Your task to perform on an android device: change alarm snooze length Image 0: 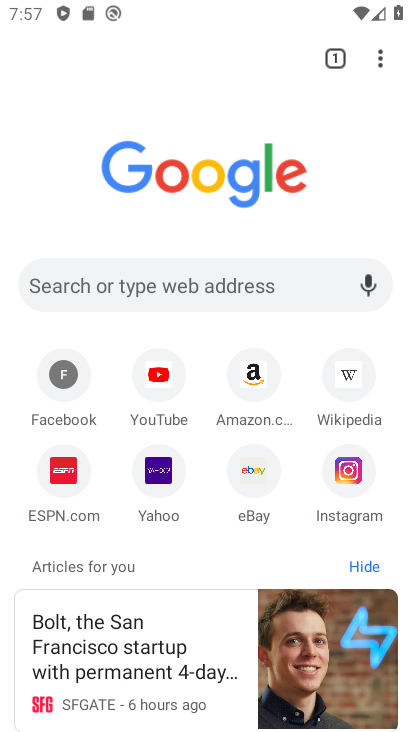
Step 0: press home button
Your task to perform on an android device: change alarm snooze length Image 1: 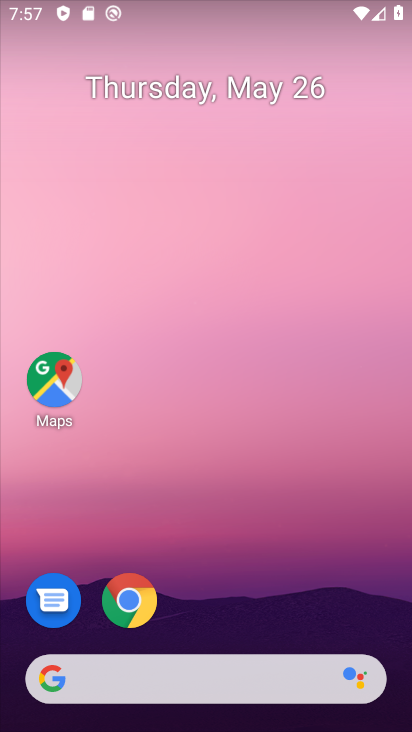
Step 1: drag from (199, 623) to (233, 7)
Your task to perform on an android device: change alarm snooze length Image 2: 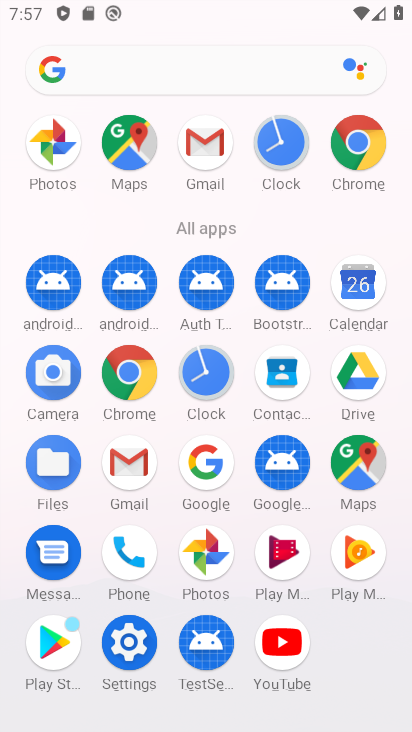
Step 2: click (298, 144)
Your task to perform on an android device: change alarm snooze length Image 3: 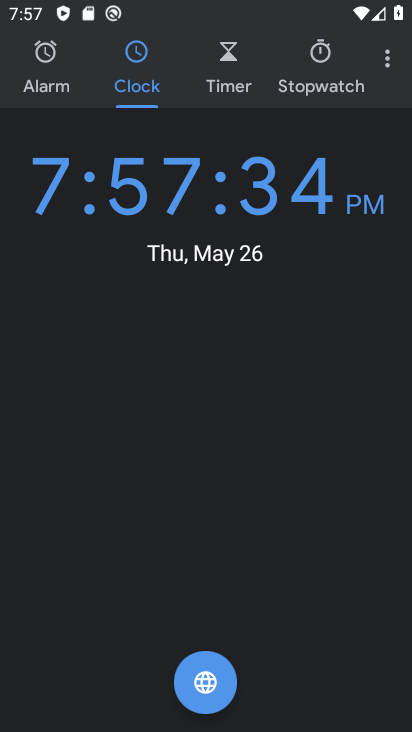
Step 3: click (397, 61)
Your task to perform on an android device: change alarm snooze length Image 4: 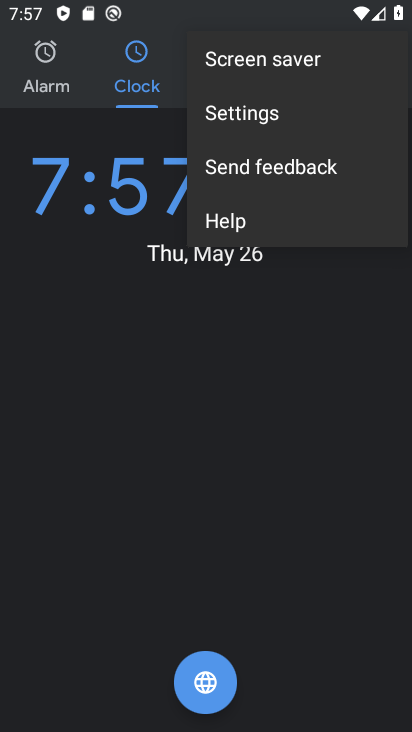
Step 4: click (243, 127)
Your task to perform on an android device: change alarm snooze length Image 5: 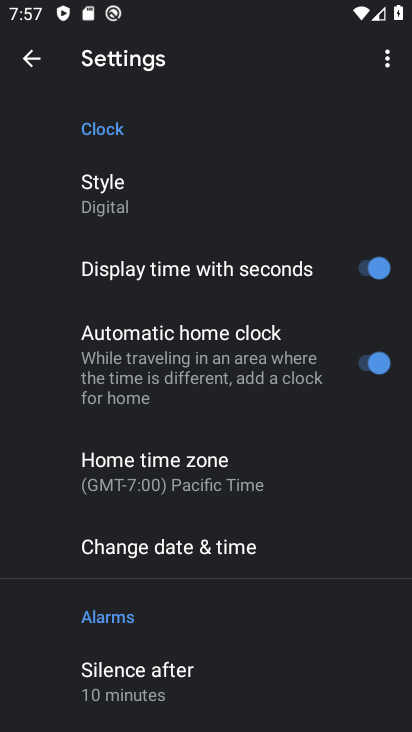
Step 5: drag from (192, 684) to (197, 199)
Your task to perform on an android device: change alarm snooze length Image 6: 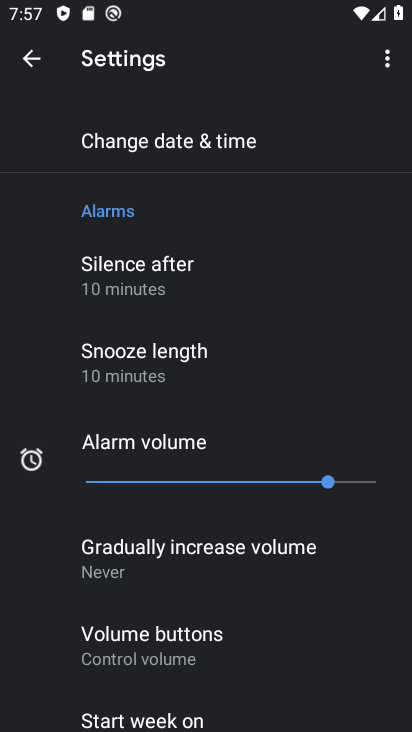
Step 6: click (154, 356)
Your task to perform on an android device: change alarm snooze length Image 7: 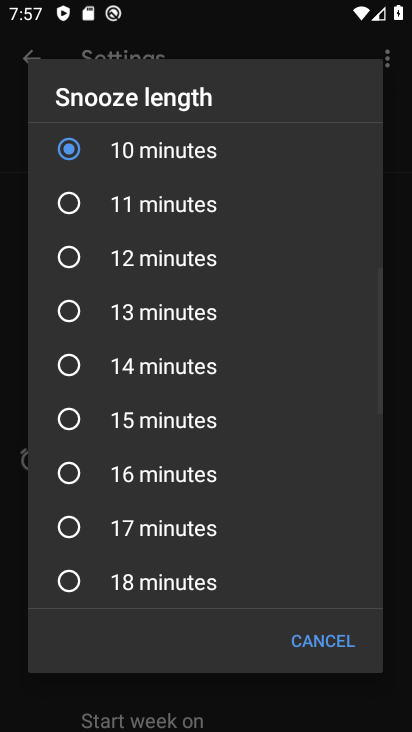
Step 7: click (133, 587)
Your task to perform on an android device: change alarm snooze length Image 8: 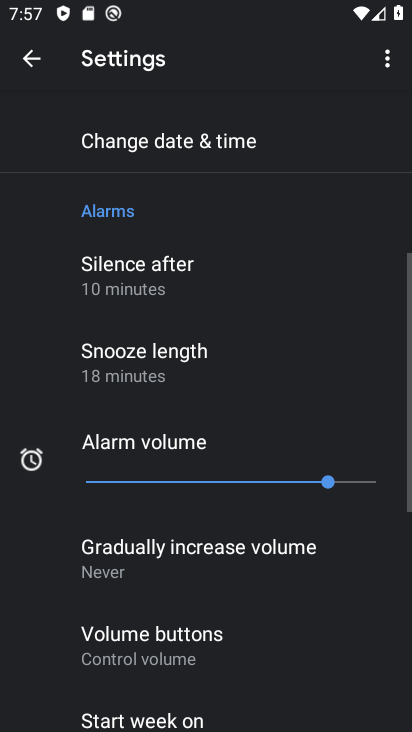
Step 8: task complete